Your task to perform on an android device: Show me popular games on the Play Store Image 0: 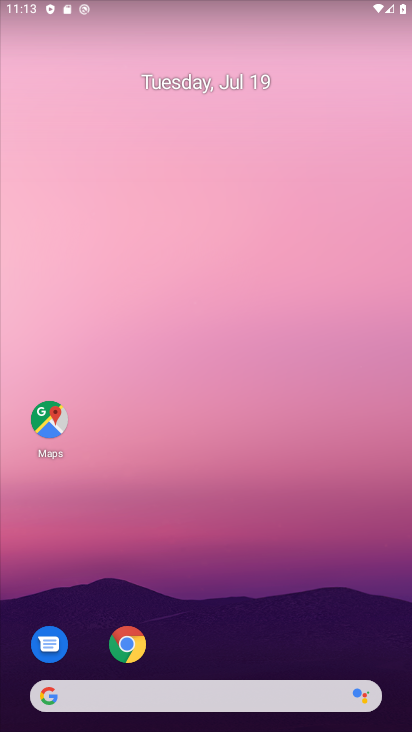
Step 0: drag from (194, 662) to (322, 5)
Your task to perform on an android device: Show me popular games on the Play Store Image 1: 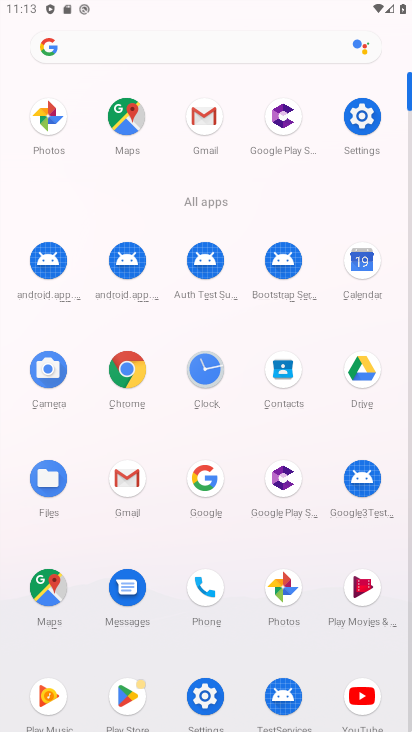
Step 1: click (128, 691)
Your task to perform on an android device: Show me popular games on the Play Store Image 2: 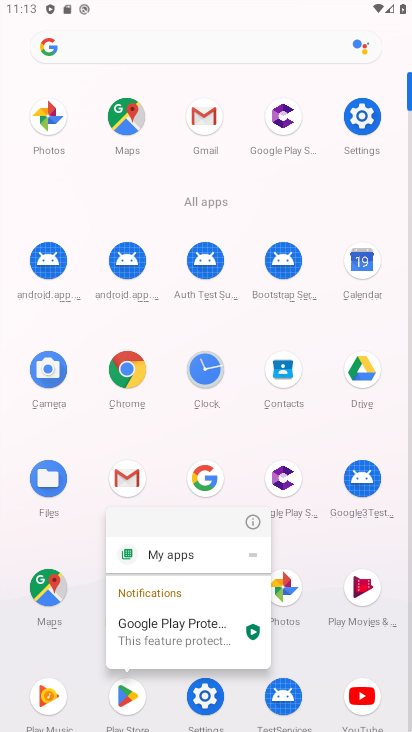
Step 2: click (246, 513)
Your task to perform on an android device: Show me popular games on the Play Store Image 3: 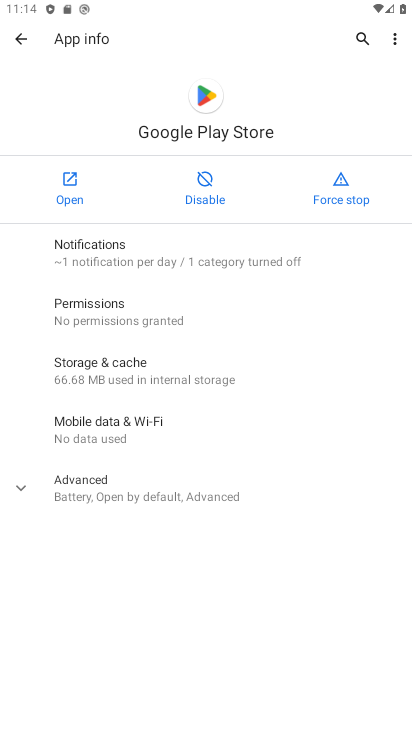
Step 3: click (73, 182)
Your task to perform on an android device: Show me popular games on the Play Store Image 4: 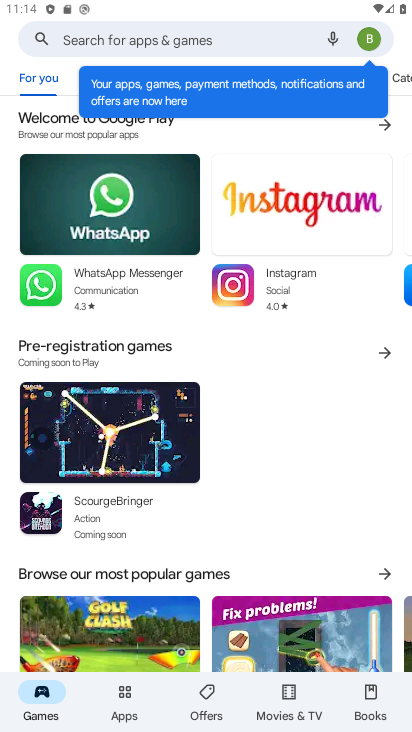
Step 4: click (380, 573)
Your task to perform on an android device: Show me popular games on the Play Store Image 5: 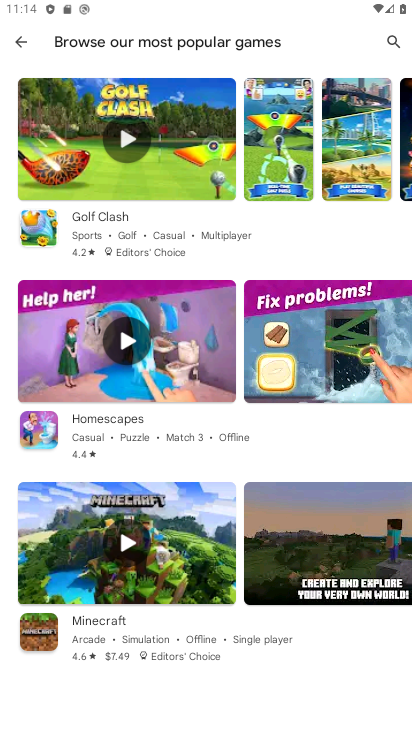
Step 5: task complete